Your task to perform on an android device: When is my next appointment? Image 0: 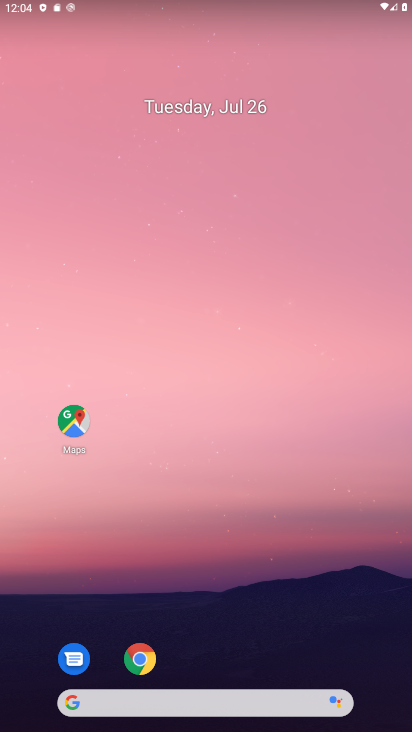
Step 0: press home button
Your task to perform on an android device: When is my next appointment? Image 1: 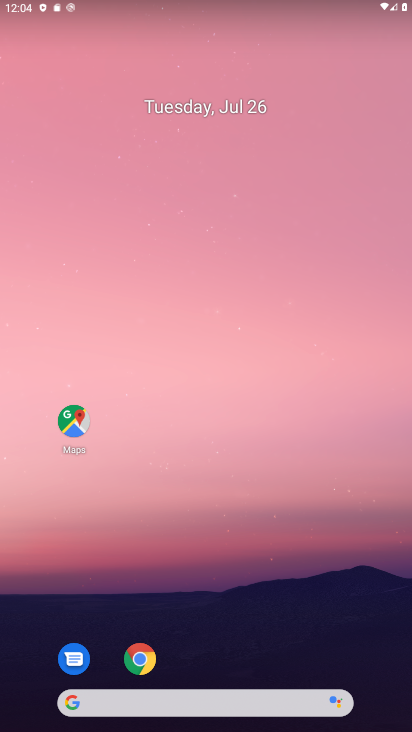
Step 1: click (214, 188)
Your task to perform on an android device: When is my next appointment? Image 2: 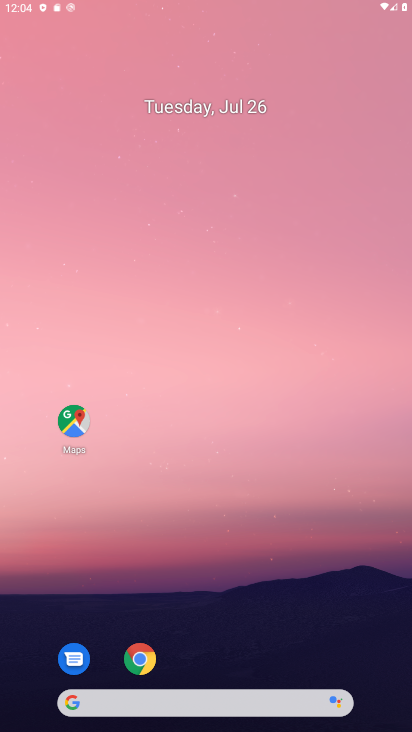
Step 2: press home button
Your task to perform on an android device: When is my next appointment? Image 3: 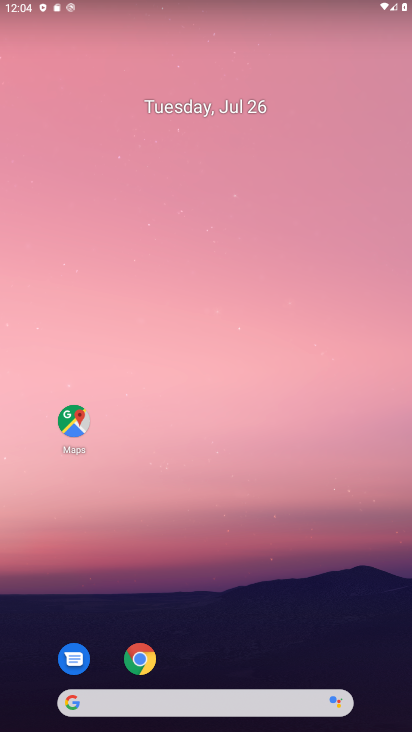
Step 3: press home button
Your task to perform on an android device: When is my next appointment? Image 4: 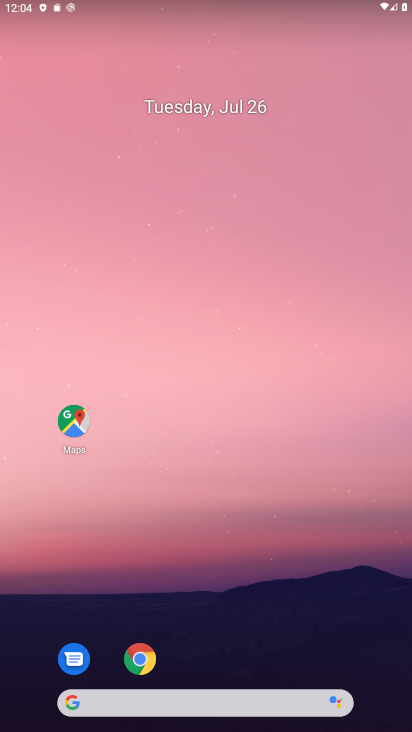
Step 4: click (222, 280)
Your task to perform on an android device: When is my next appointment? Image 5: 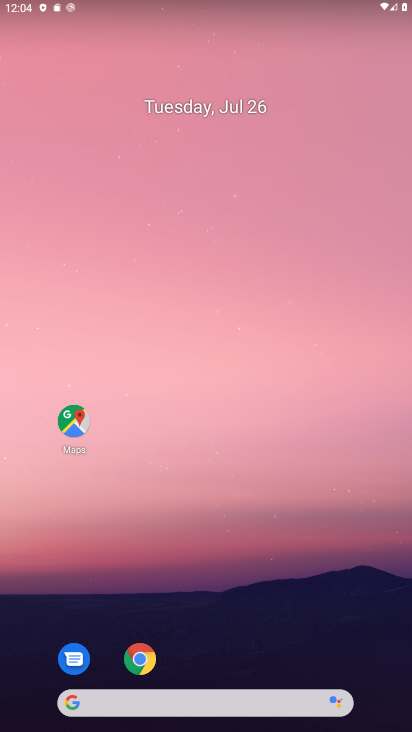
Step 5: drag from (269, 562) to (334, 24)
Your task to perform on an android device: When is my next appointment? Image 6: 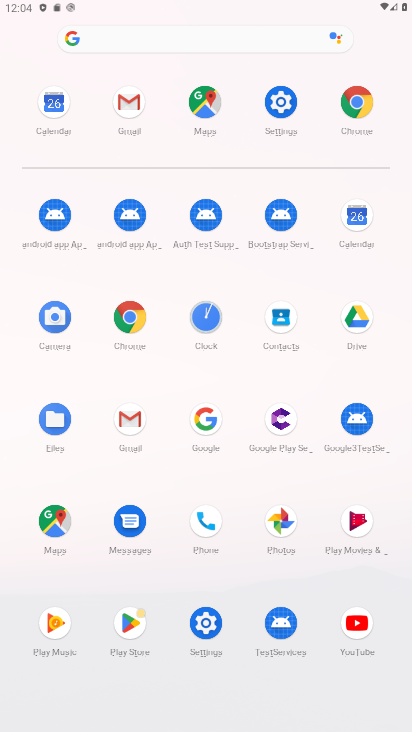
Step 6: click (348, 220)
Your task to perform on an android device: When is my next appointment? Image 7: 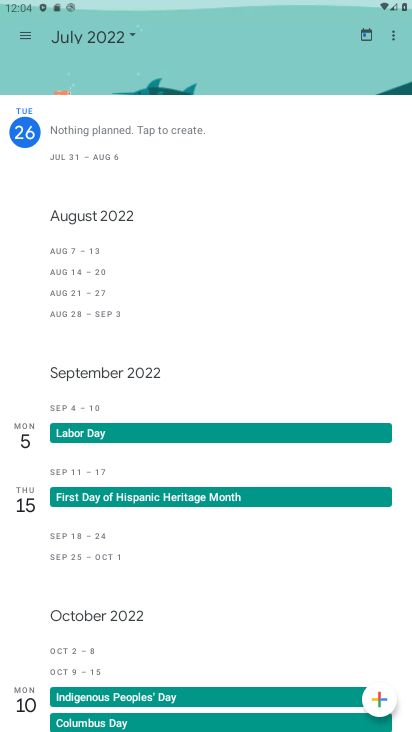
Step 7: task complete